Your task to perform on an android device: Do I have any events tomorrow? Image 0: 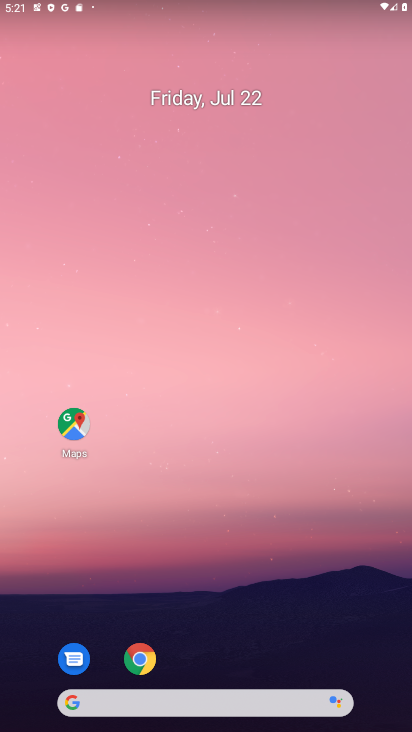
Step 0: press home button
Your task to perform on an android device: Do I have any events tomorrow? Image 1: 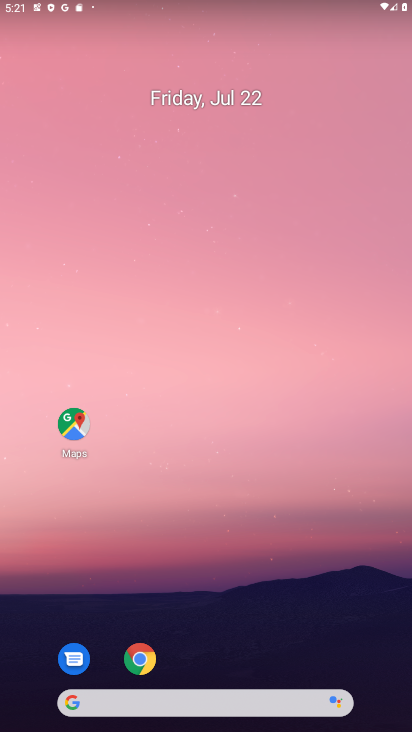
Step 1: drag from (217, 665) to (298, 97)
Your task to perform on an android device: Do I have any events tomorrow? Image 2: 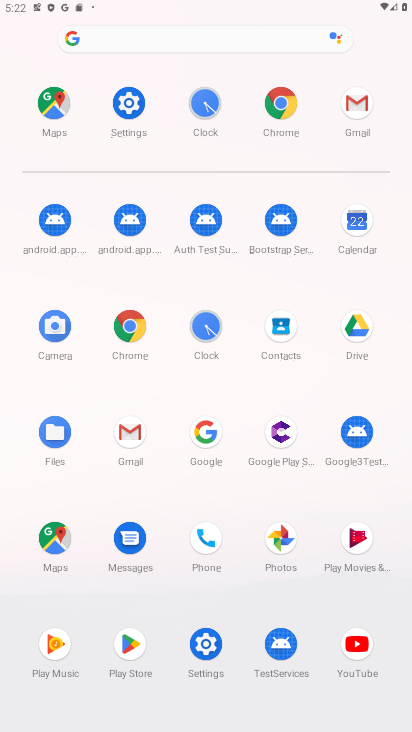
Step 2: click (362, 223)
Your task to perform on an android device: Do I have any events tomorrow? Image 3: 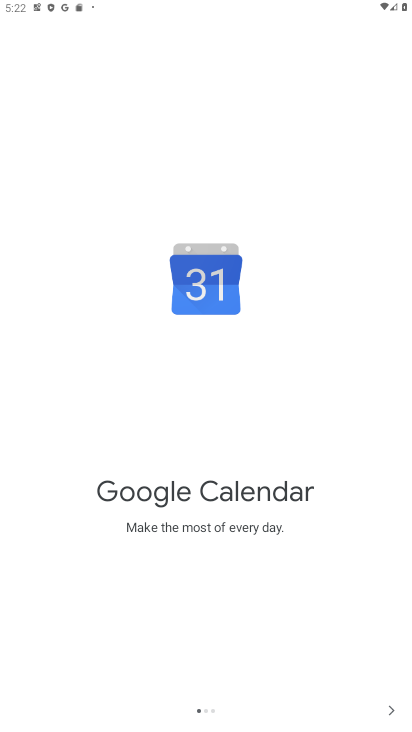
Step 3: click (381, 720)
Your task to perform on an android device: Do I have any events tomorrow? Image 4: 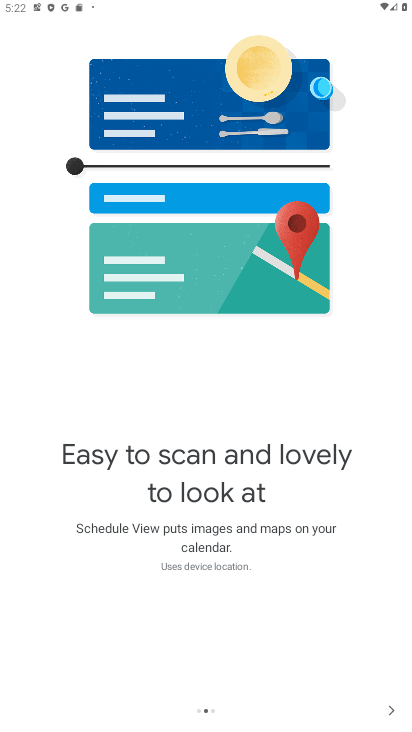
Step 4: click (389, 703)
Your task to perform on an android device: Do I have any events tomorrow? Image 5: 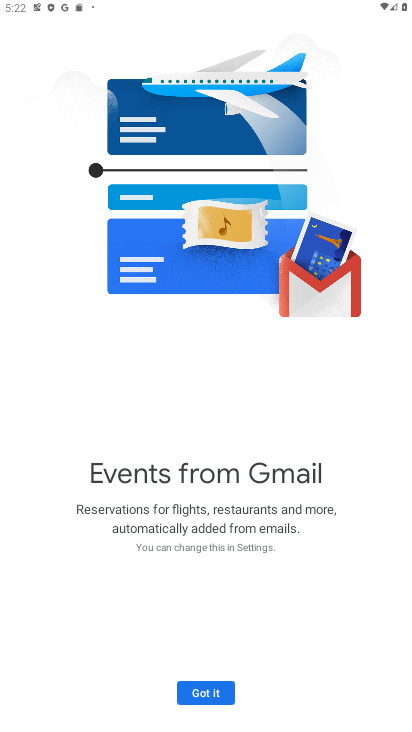
Step 5: click (201, 687)
Your task to perform on an android device: Do I have any events tomorrow? Image 6: 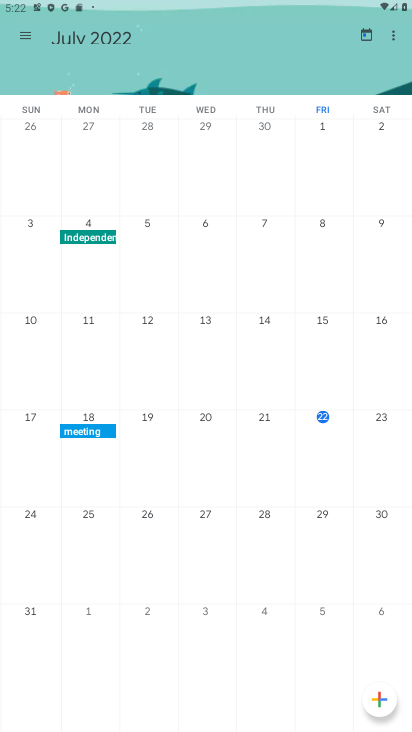
Step 6: click (23, 29)
Your task to perform on an android device: Do I have any events tomorrow? Image 7: 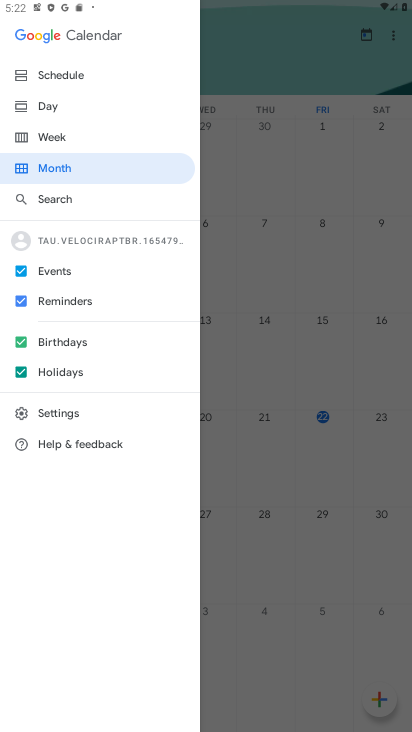
Step 7: click (45, 106)
Your task to perform on an android device: Do I have any events tomorrow? Image 8: 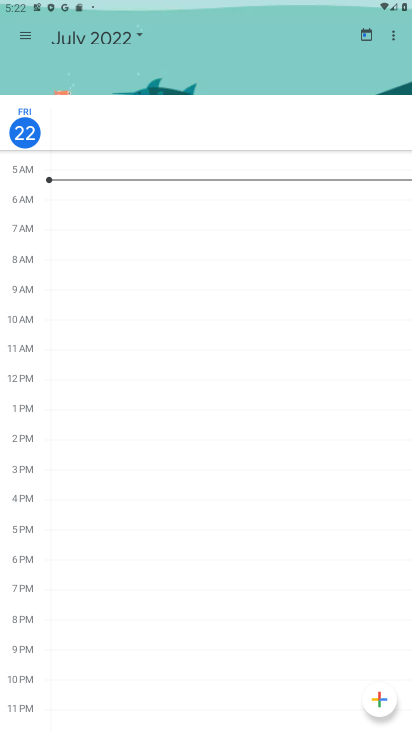
Step 8: click (134, 31)
Your task to perform on an android device: Do I have any events tomorrow? Image 9: 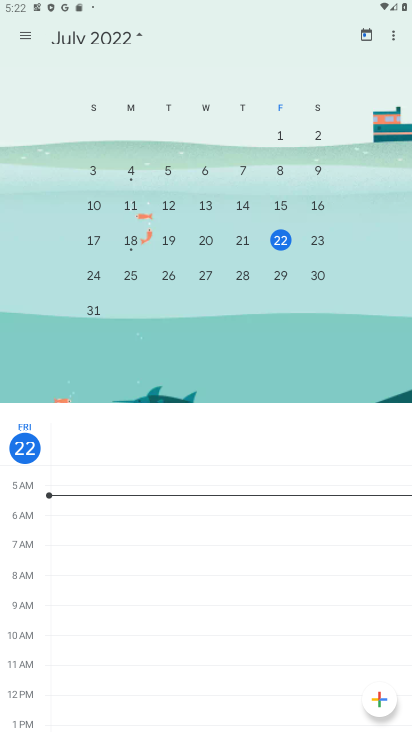
Step 9: click (321, 237)
Your task to perform on an android device: Do I have any events tomorrow? Image 10: 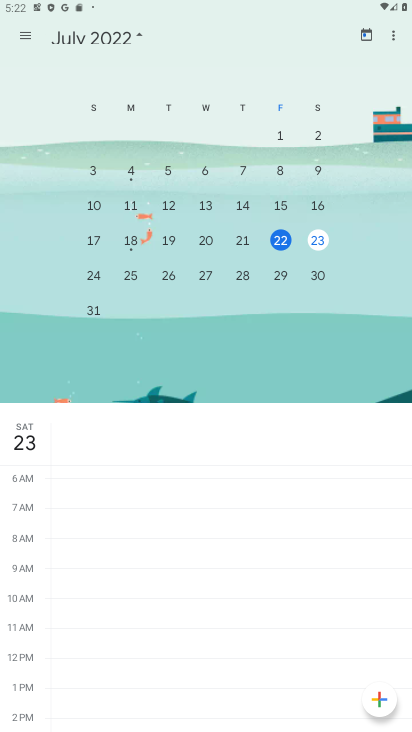
Step 10: click (137, 34)
Your task to perform on an android device: Do I have any events tomorrow? Image 11: 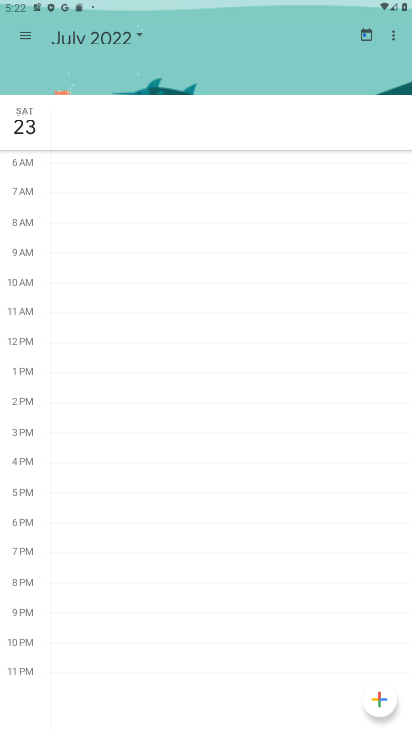
Step 11: task complete